Your task to perform on an android device: delete browsing data in the chrome app Image 0: 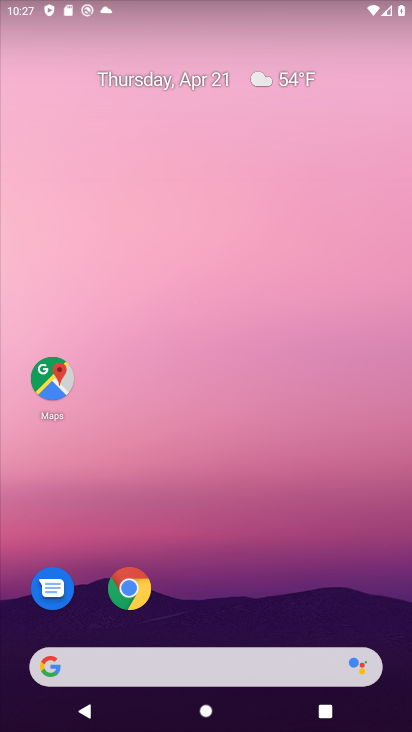
Step 0: click (139, 579)
Your task to perform on an android device: delete browsing data in the chrome app Image 1: 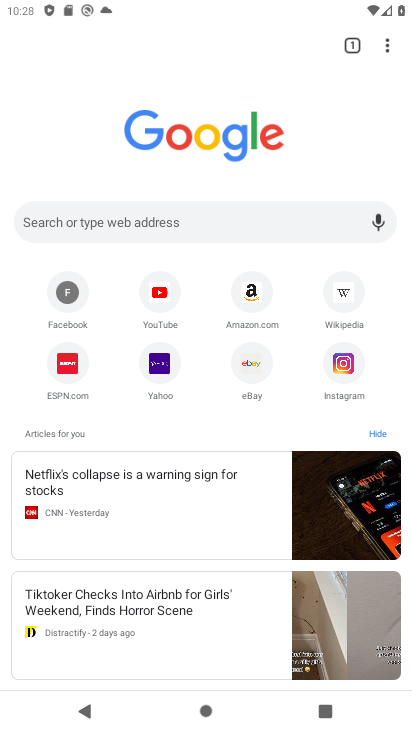
Step 1: click (389, 36)
Your task to perform on an android device: delete browsing data in the chrome app Image 2: 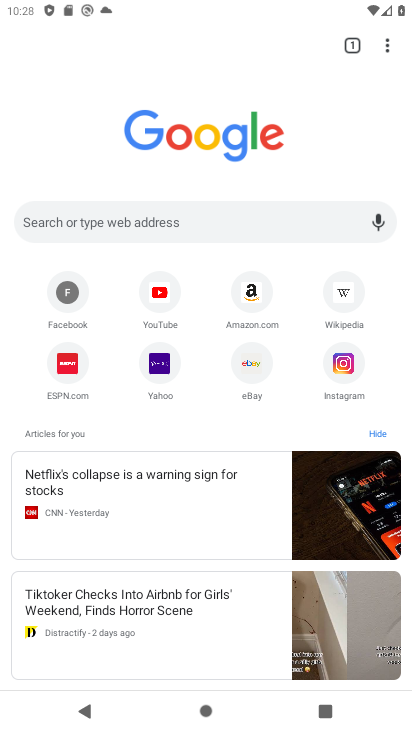
Step 2: click (391, 48)
Your task to perform on an android device: delete browsing data in the chrome app Image 3: 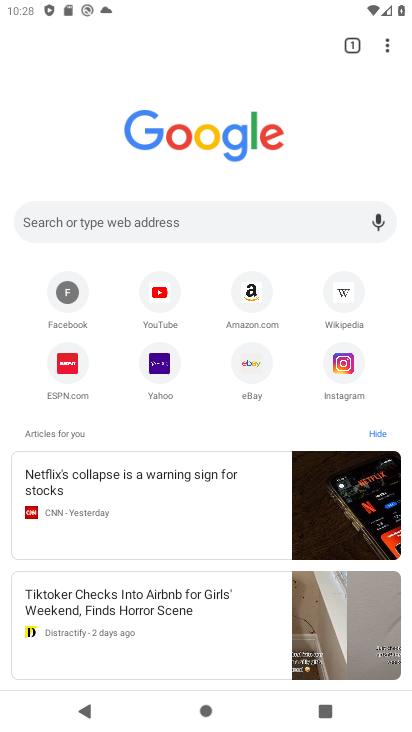
Step 3: click (387, 49)
Your task to perform on an android device: delete browsing data in the chrome app Image 4: 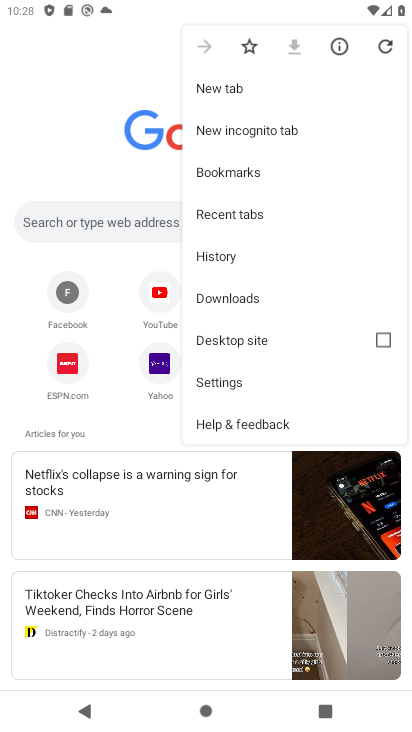
Step 4: click (221, 253)
Your task to perform on an android device: delete browsing data in the chrome app Image 5: 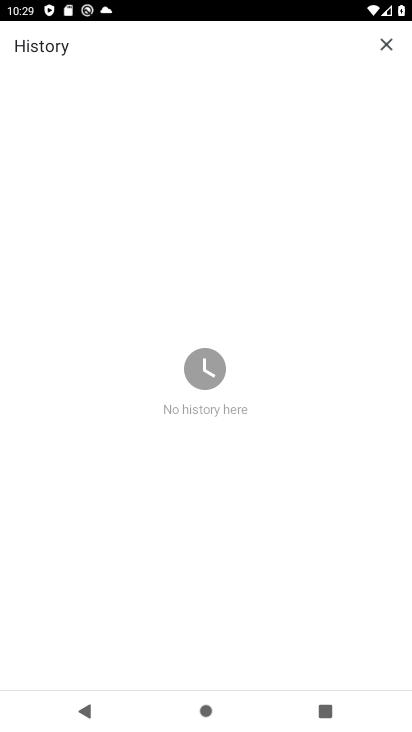
Step 5: task complete